Your task to perform on an android device: turn on showing notifications on the lock screen Image 0: 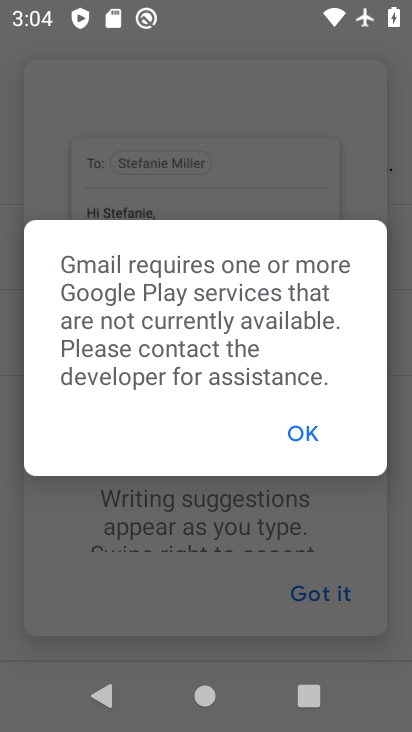
Step 0: press home button
Your task to perform on an android device: turn on showing notifications on the lock screen Image 1: 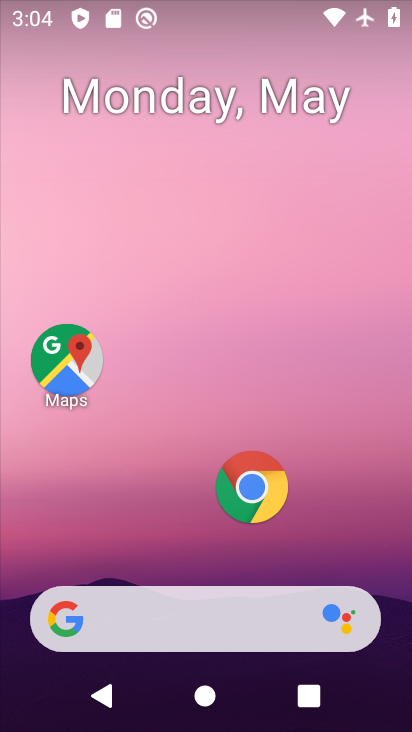
Step 1: drag from (154, 550) to (274, 0)
Your task to perform on an android device: turn on showing notifications on the lock screen Image 2: 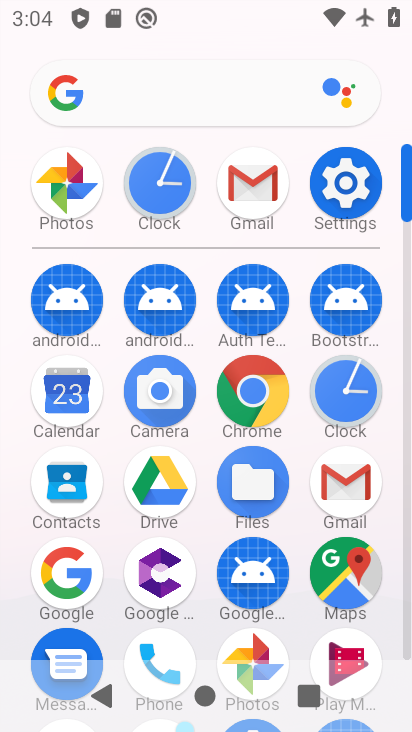
Step 2: click (345, 185)
Your task to perform on an android device: turn on showing notifications on the lock screen Image 3: 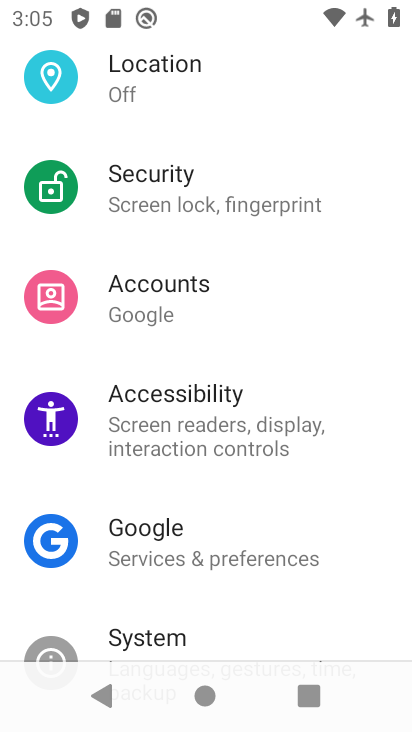
Step 3: drag from (197, 354) to (208, 531)
Your task to perform on an android device: turn on showing notifications on the lock screen Image 4: 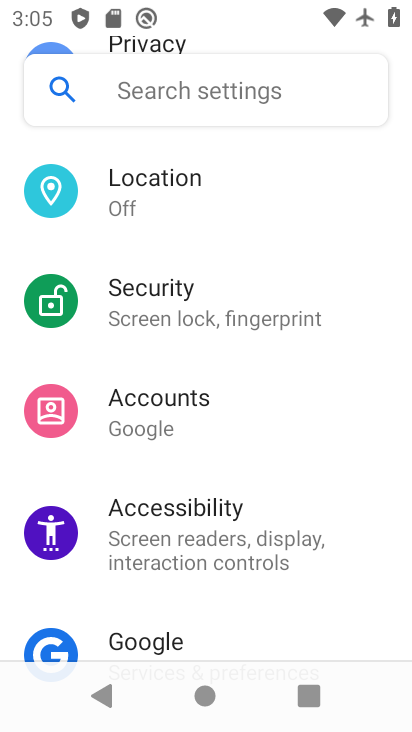
Step 4: drag from (260, 365) to (288, 531)
Your task to perform on an android device: turn on showing notifications on the lock screen Image 5: 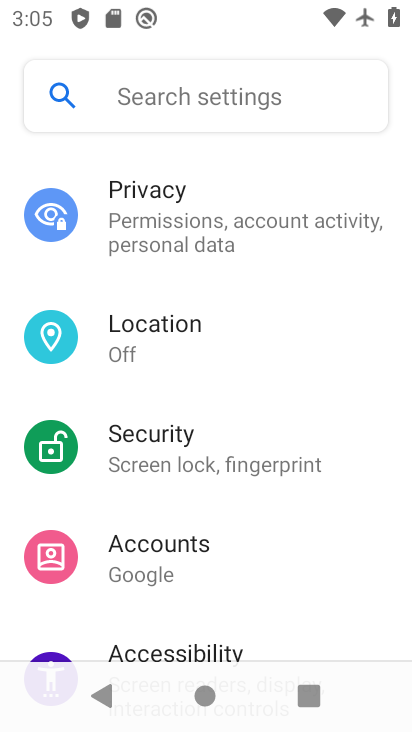
Step 5: drag from (236, 360) to (257, 537)
Your task to perform on an android device: turn on showing notifications on the lock screen Image 6: 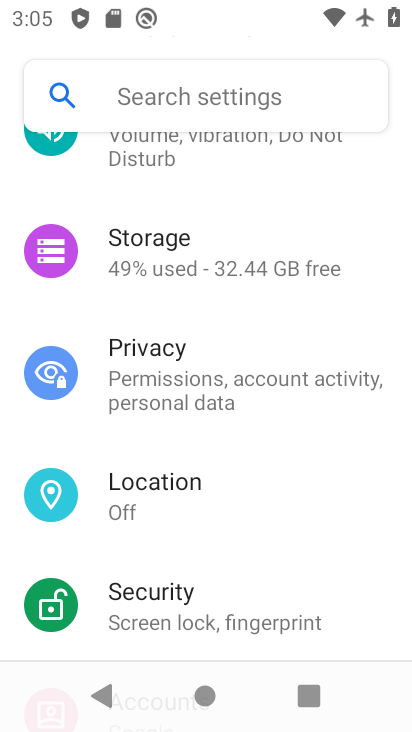
Step 6: drag from (223, 375) to (272, 632)
Your task to perform on an android device: turn on showing notifications on the lock screen Image 7: 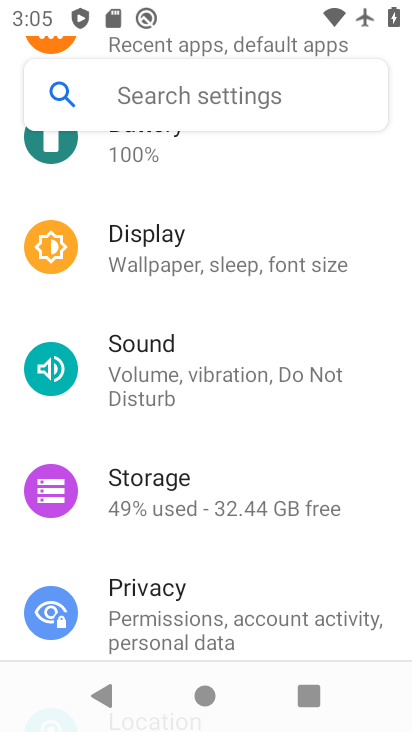
Step 7: drag from (160, 274) to (239, 641)
Your task to perform on an android device: turn on showing notifications on the lock screen Image 8: 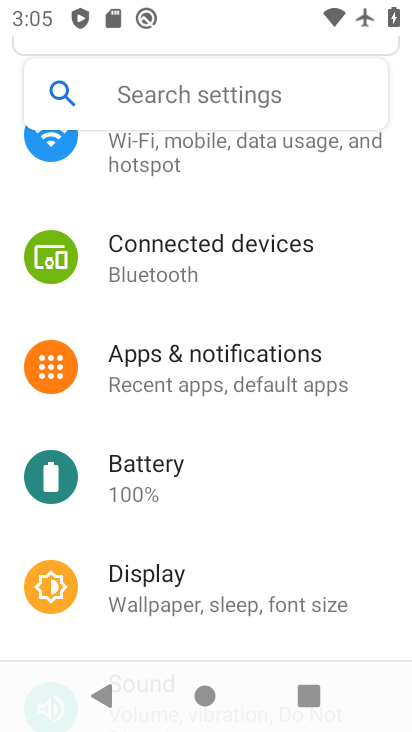
Step 8: click (213, 390)
Your task to perform on an android device: turn on showing notifications on the lock screen Image 9: 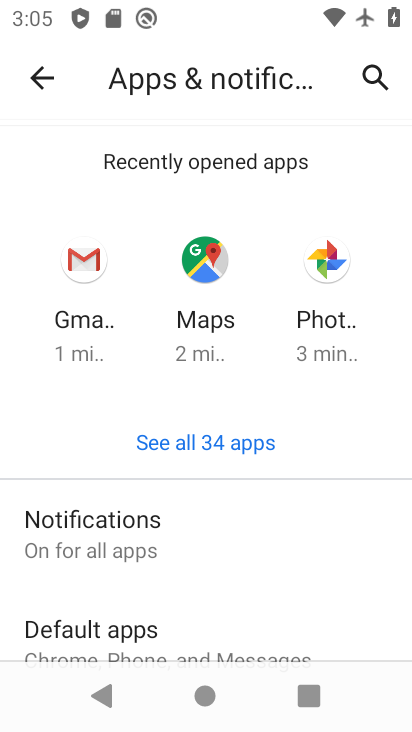
Step 9: click (127, 536)
Your task to perform on an android device: turn on showing notifications on the lock screen Image 10: 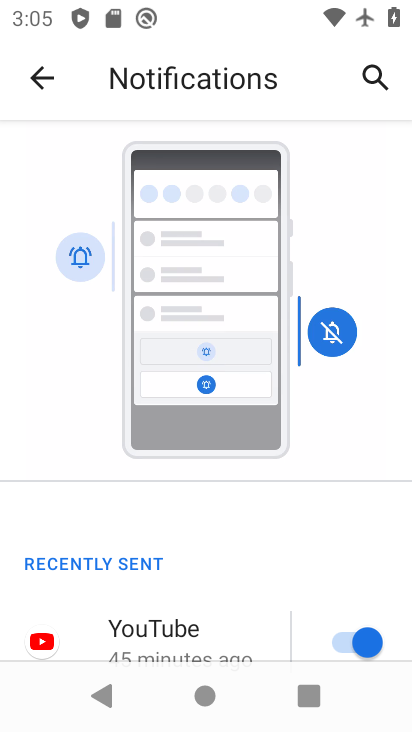
Step 10: drag from (205, 633) to (197, 268)
Your task to perform on an android device: turn on showing notifications on the lock screen Image 11: 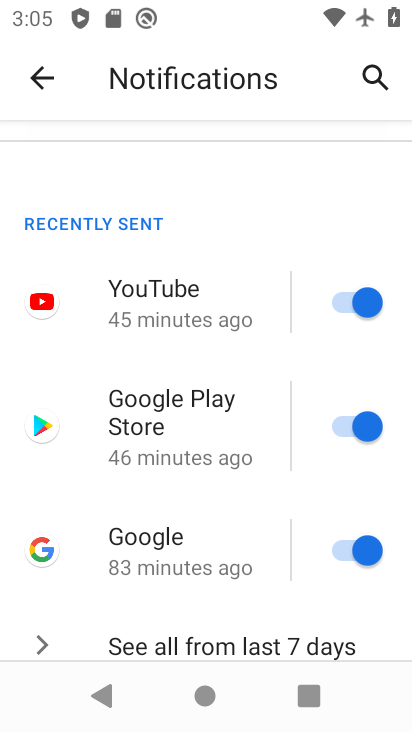
Step 11: drag from (223, 579) to (207, 174)
Your task to perform on an android device: turn on showing notifications on the lock screen Image 12: 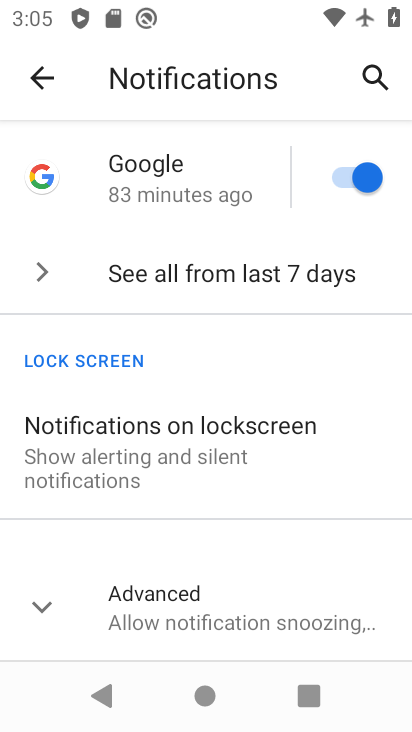
Step 12: click (160, 461)
Your task to perform on an android device: turn on showing notifications on the lock screen Image 13: 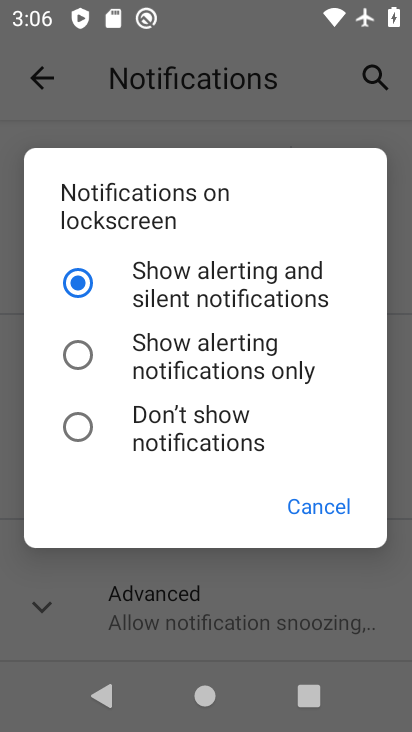
Step 13: click (206, 289)
Your task to perform on an android device: turn on showing notifications on the lock screen Image 14: 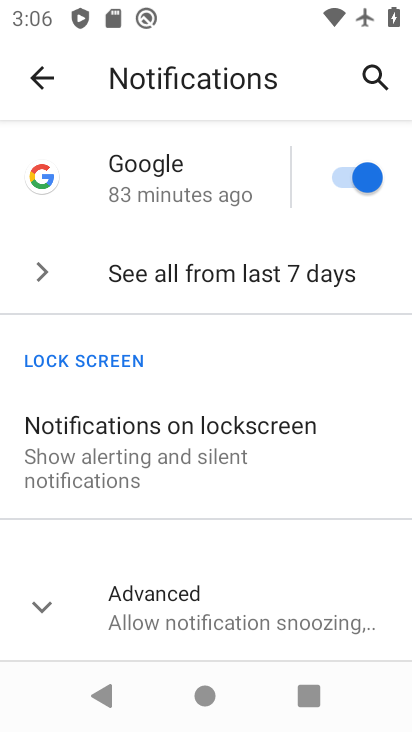
Step 14: task complete